Your task to perform on an android device: find which apps use the phone's location Image 0: 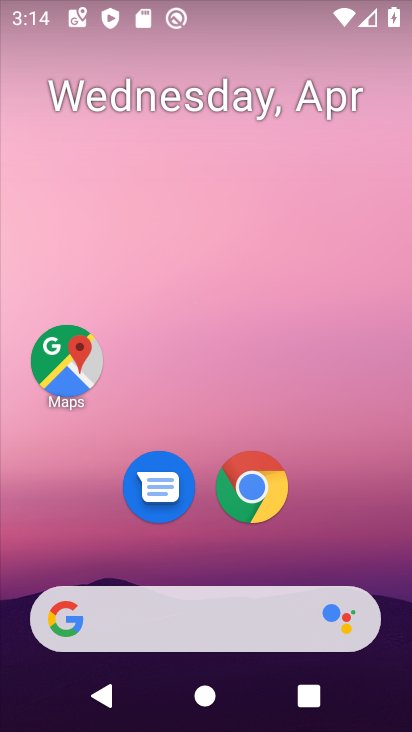
Step 0: click (303, 34)
Your task to perform on an android device: find which apps use the phone's location Image 1: 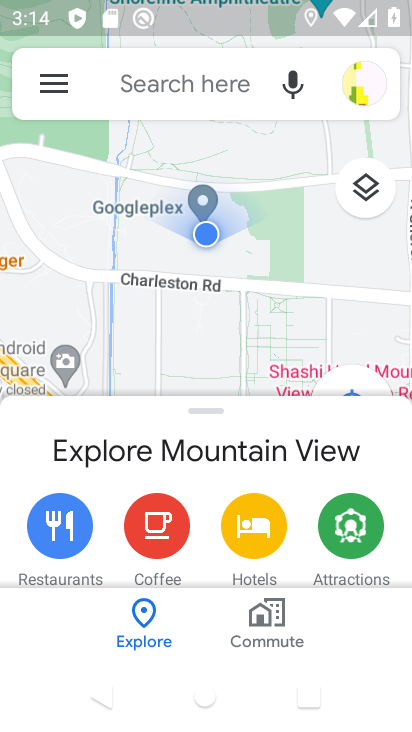
Step 1: press home button
Your task to perform on an android device: find which apps use the phone's location Image 2: 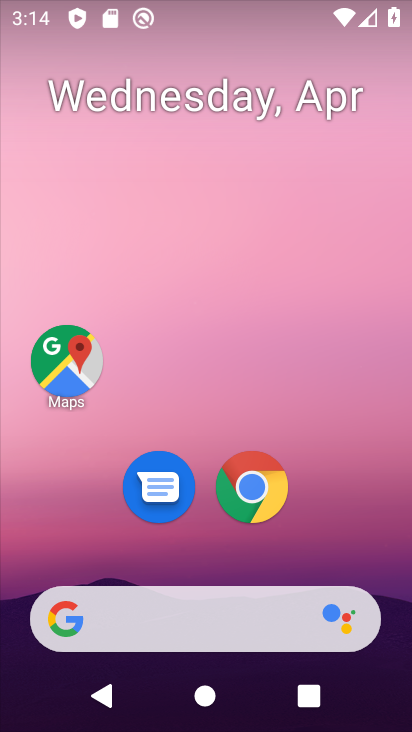
Step 2: click (350, 551)
Your task to perform on an android device: find which apps use the phone's location Image 3: 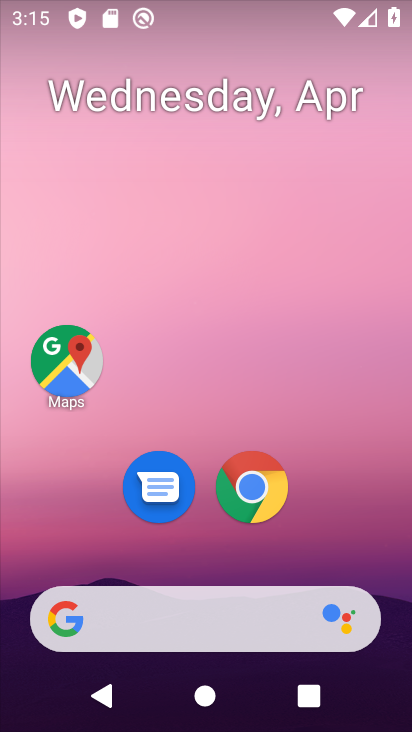
Step 3: drag from (240, 380) to (214, 7)
Your task to perform on an android device: find which apps use the phone's location Image 4: 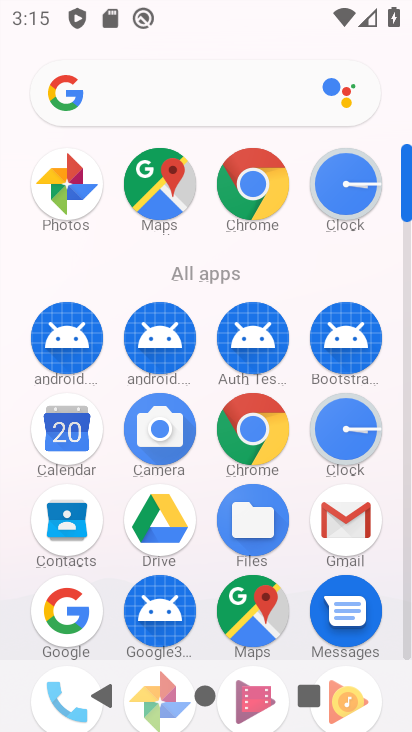
Step 4: click (404, 395)
Your task to perform on an android device: find which apps use the phone's location Image 5: 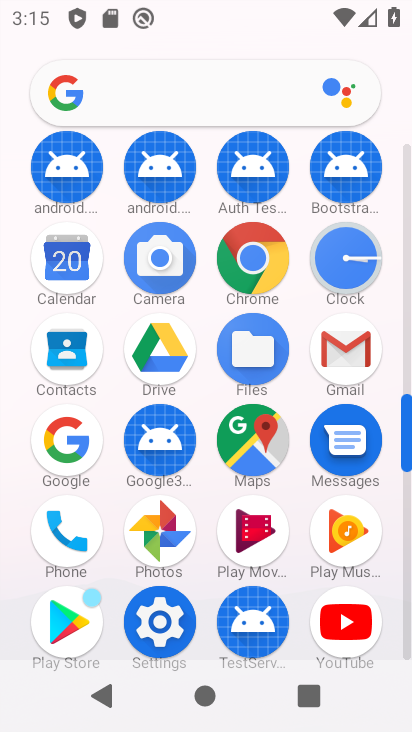
Step 5: drag from (402, 593) to (407, 637)
Your task to perform on an android device: find which apps use the phone's location Image 6: 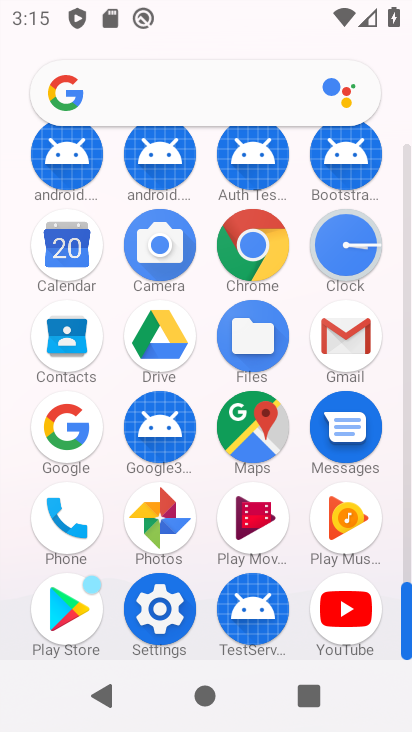
Step 6: click (57, 527)
Your task to perform on an android device: find which apps use the phone's location Image 7: 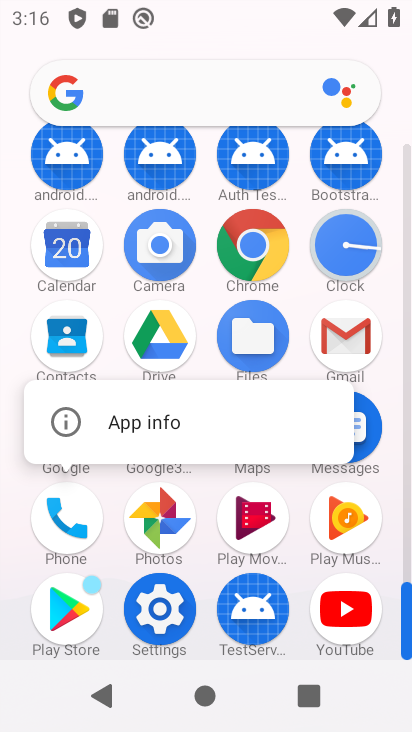
Step 7: click (87, 529)
Your task to perform on an android device: find which apps use the phone's location Image 8: 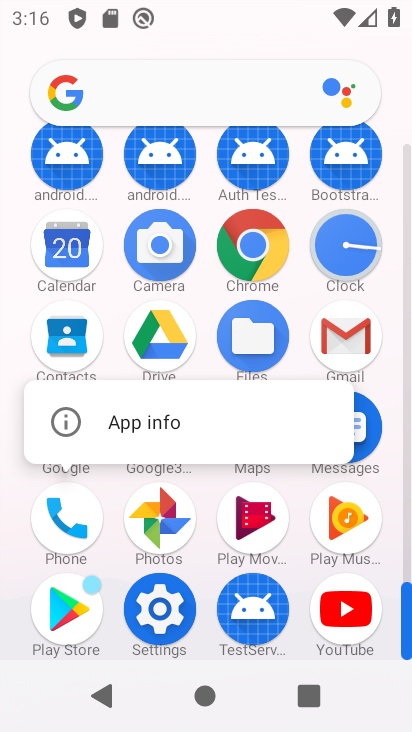
Step 8: click (58, 518)
Your task to perform on an android device: find which apps use the phone's location Image 9: 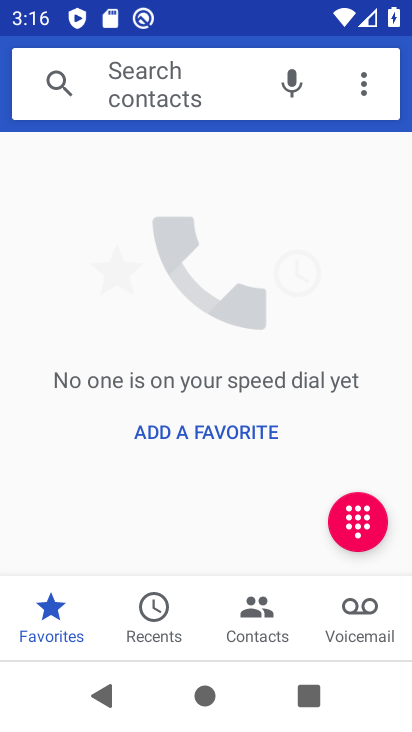
Step 9: press back button
Your task to perform on an android device: find which apps use the phone's location Image 10: 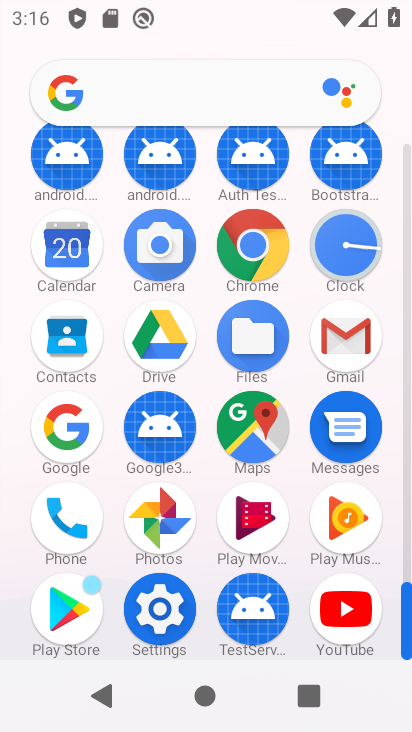
Step 10: click (88, 510)
Your task to perform on an android device: find which apps use the phone's location Image 11: 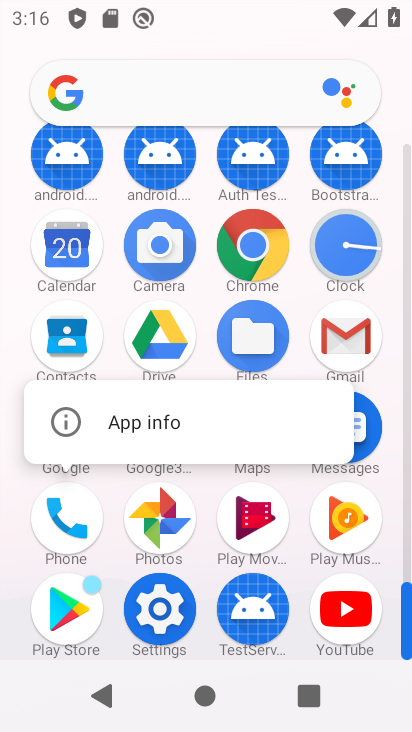
Step 11: click (68, 438)
Your task to perform on an android device: find which apps use the phone's location Image 12: 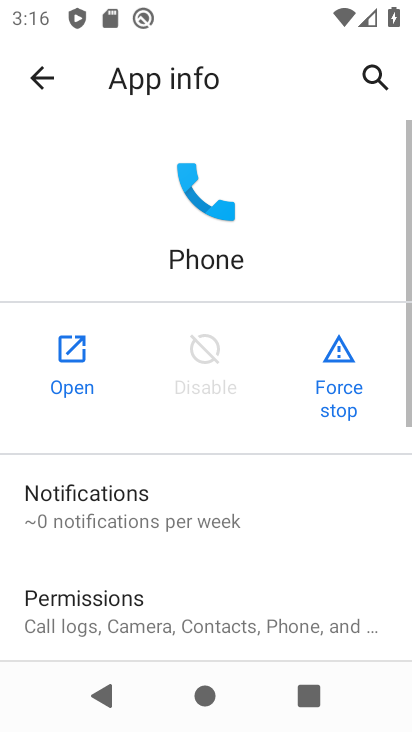
Step 12: drag from (242, 599) to (227, 6)
Your task to perform on an android device: find which apps use the phone's location Image 13: 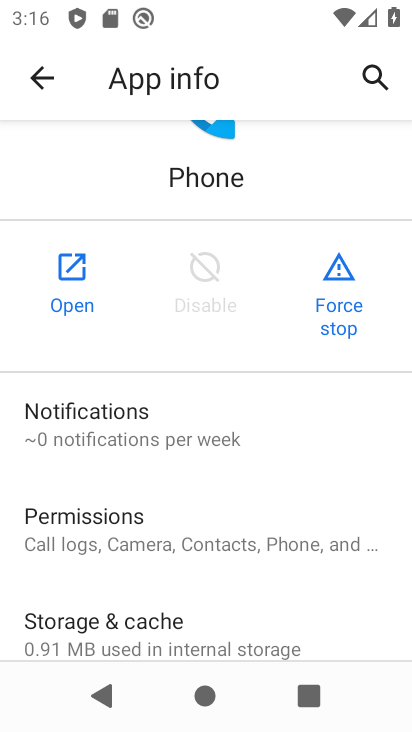
Step 13: click (76, 532)
Your task to perform on an android device: find which apps use the phone's location Image 14: 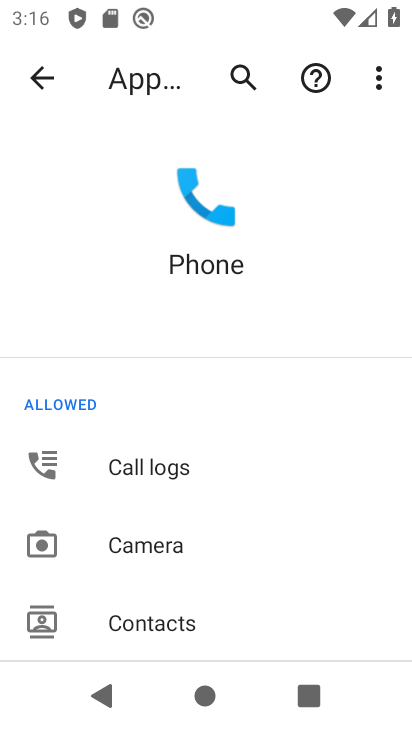
Step 14: task complete